Your task to perform on an android device: Search for flights from Seoul to Mexico city Image 0: 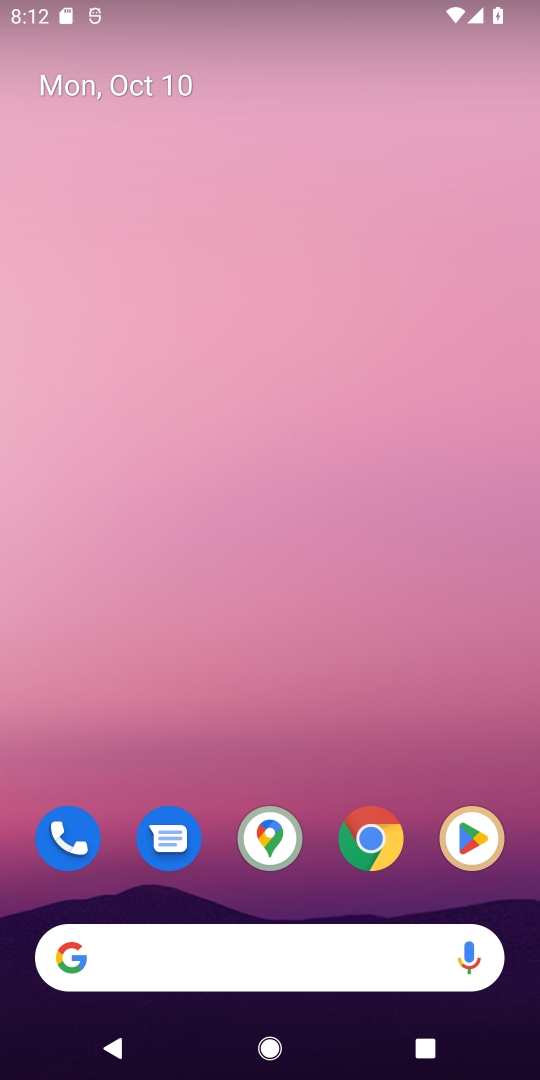
Step 0: click (372, 841)
Your task to perform on an android device: Search for flights from Seoul to Mexico city Image 1: 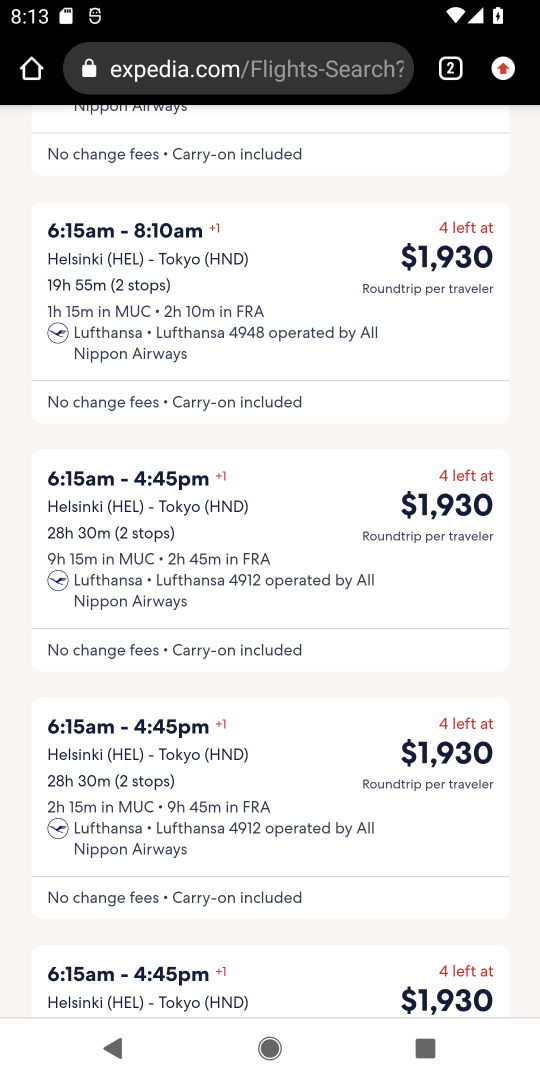
Step 1: task complete